Your task to perform on an android device: Search for seafood restaurants on Google Maps Image 0: 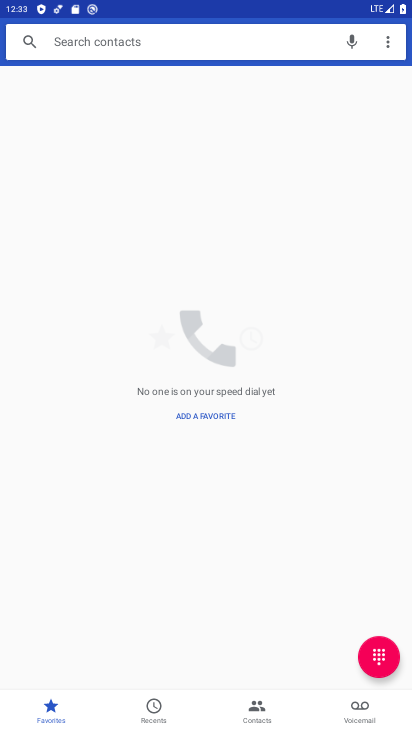
Step 0: press home button
Your task to perform on an android device: Search for seafood restaurants on Google Maps Image 1: 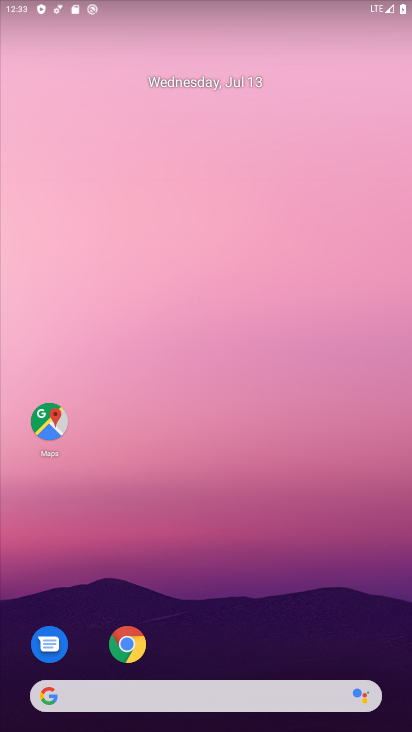
Step 1: drag from (200, 643) to (260, 143)
Your task to perform on an android device: Search for seafood restaurants on Google Maps Image 2: 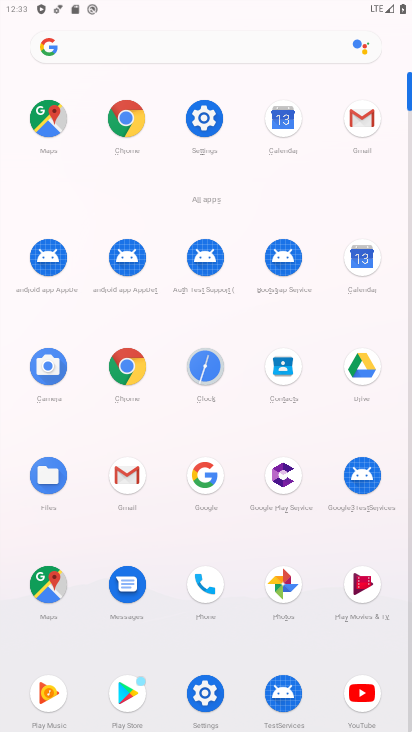
Step 2: click (48, 121)
Your task to perform on an android device: Search for seafood restaurants on Google Maps Image 3: 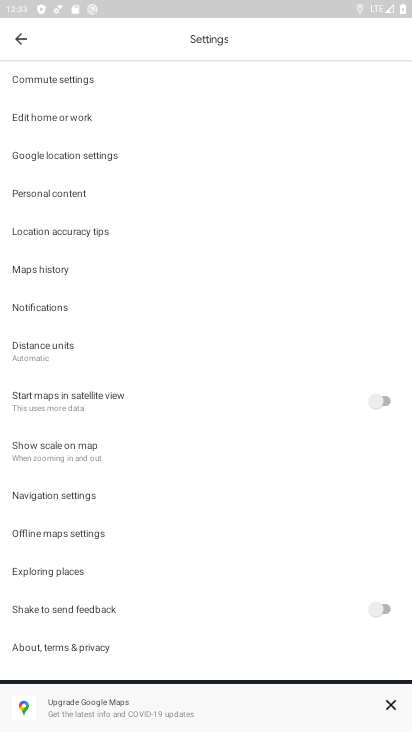
Step 3: click (18, 38)
Your task to perform on an android device: Search for seafood restaurants on Google Maps Image 4: 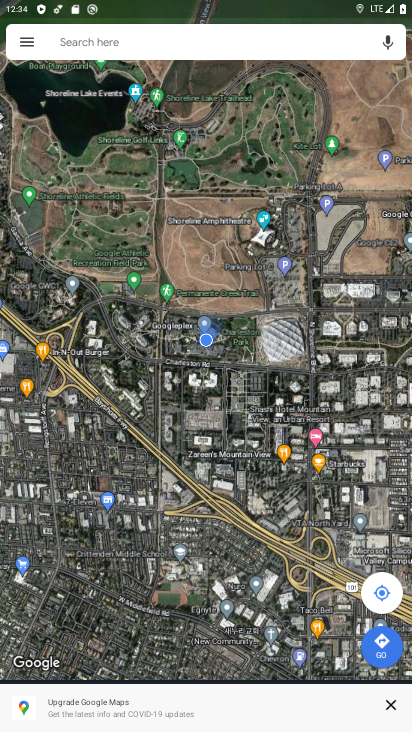
Step 4: click (166, 42)
Your task to perform on an android device: Search for seafood restaurants on Google Maps Image 5: 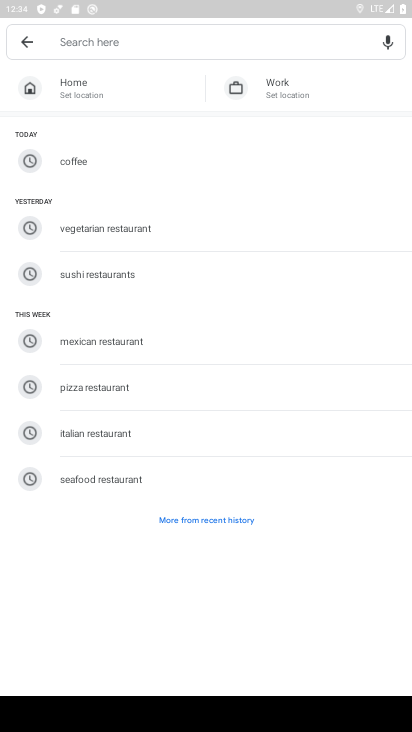
Step 5: click (87, 479)
Your task to perform on an android device: Search for seafood restaurants on Google Maps Image 6: 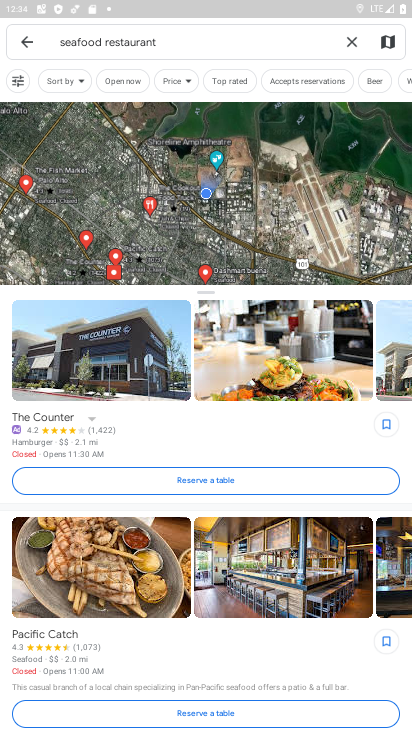
Step 6: task complete